Your task to perform on an android device: turn smart compose on in the gmail app Image 0: 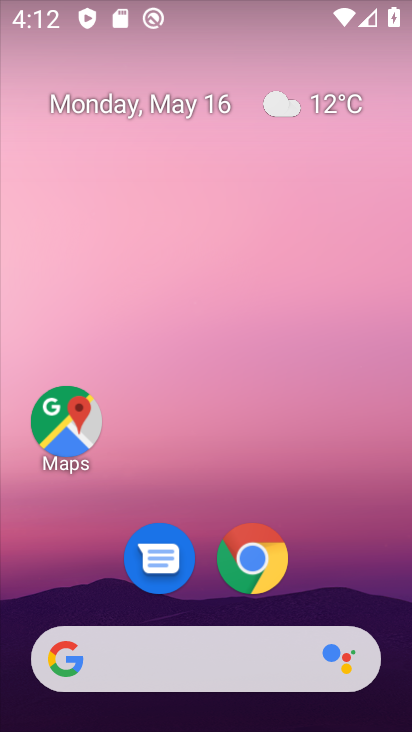
Step 0: drag from (344, 593) to (387, 136)
Your task to perform on an android device: turn smart compose on in the gmail app Image 1: 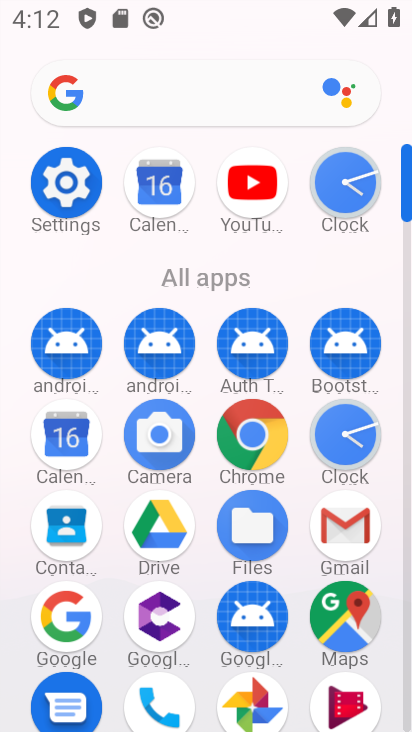
Step 1: click (353, 533)
Your task to perform on an android device: turn smart compose on in the gmail app Image 2: 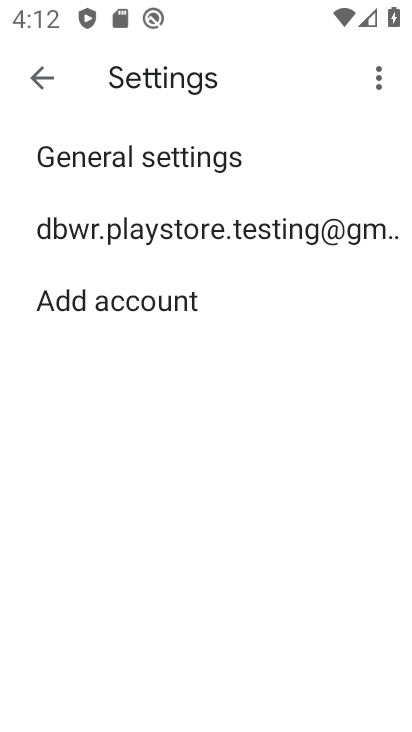
Step 2: click (194, 229)
Your task to perform on an android device: turn smart compose on in the gmail app Image 3: 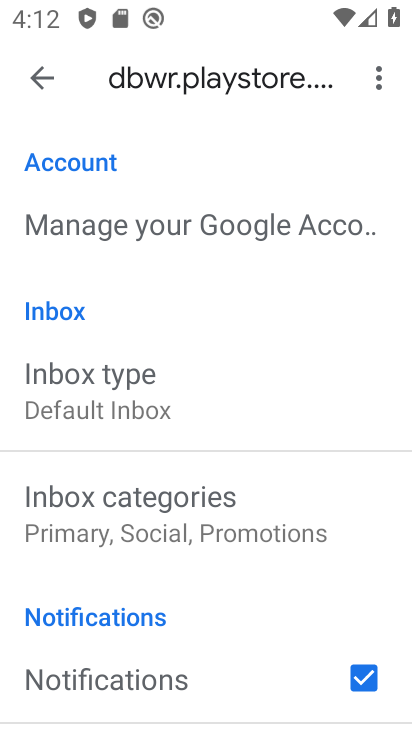
Step 3: task complete